Your task to perform on an android device: Go to wifi settings Image 0: 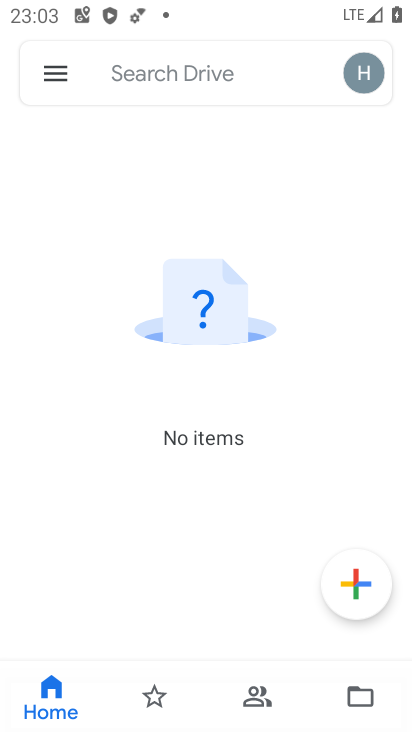
Step 0: press home button
Your task to perform on an android device: Go to wifi settings Image 1: 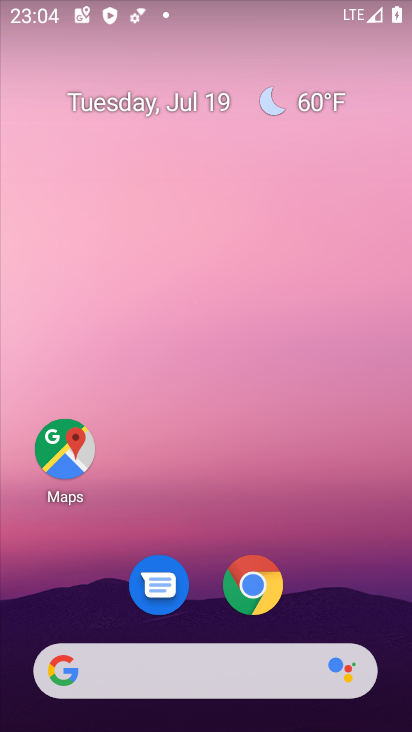
Step 1: drag from (311, 581) to (317, 43)
Your task to perform on an android device: Go to wifi settings Image 2: 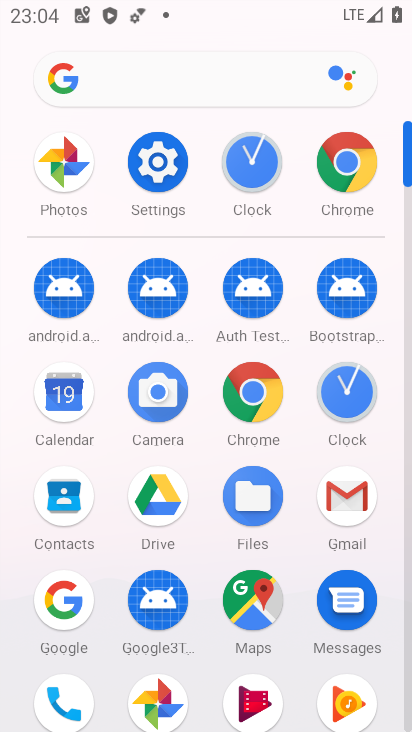
Step 2: click (164, 162)
Your task to perform on an android device: Go to wifi settings Image 3: 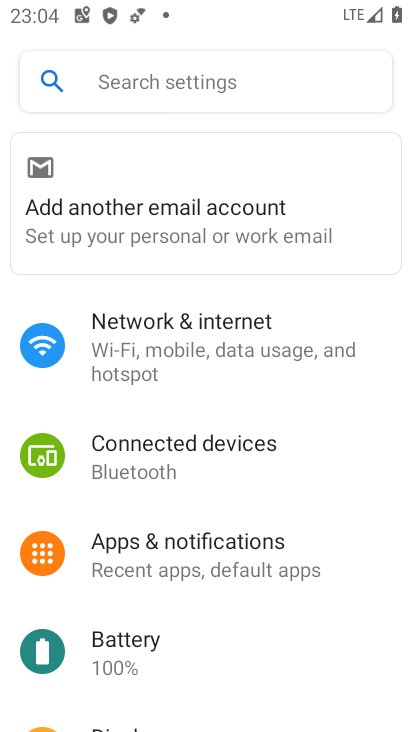
Step 3: click (196, 327)
Your task to perform on an android device: Go to wifi settings Image 4: 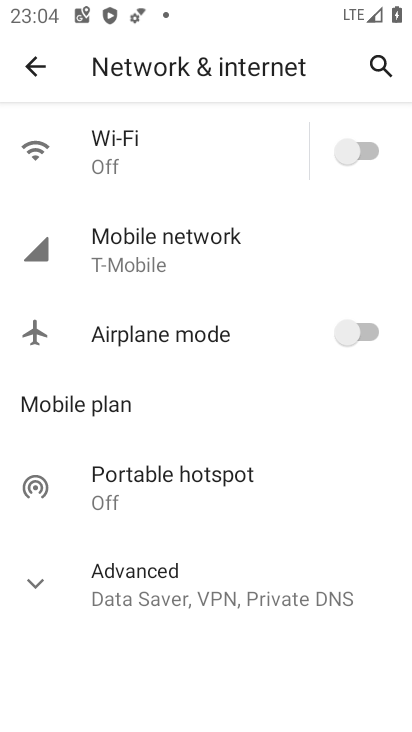
Step 4: click (192, 148)
Your task to perform on an android device: Go to wifi settings Image 5: 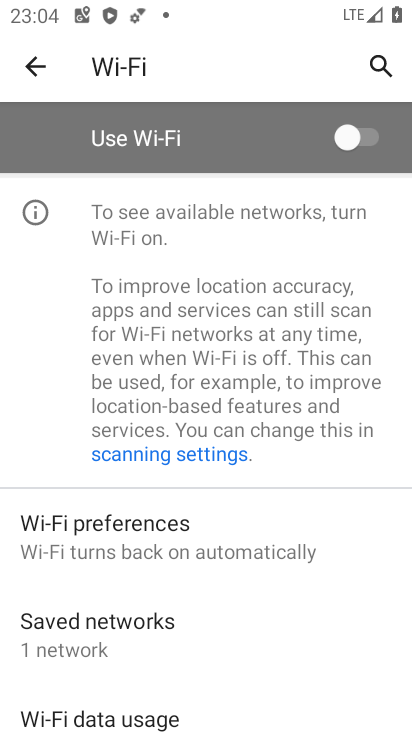
Step 5: task complete